Your task to perform on an android device: Go to Amazon Image 0: 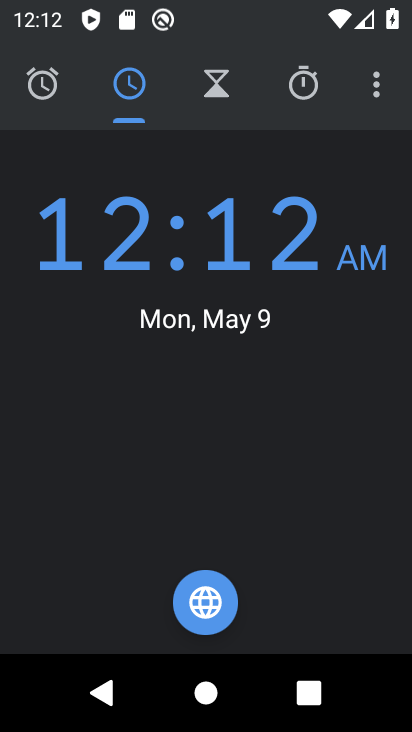
Step 0: press home button
Your task to perform on an android device: Go to Amazon Image 1: 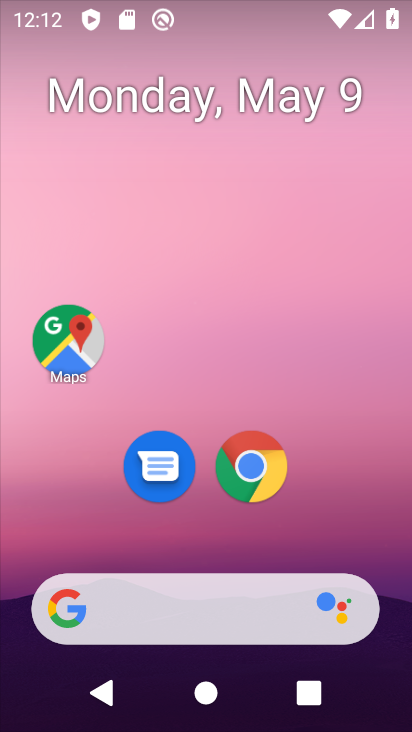
Step 1: click (252, 466)
Your task to perform on an android device: Go to Amazon Image 2: 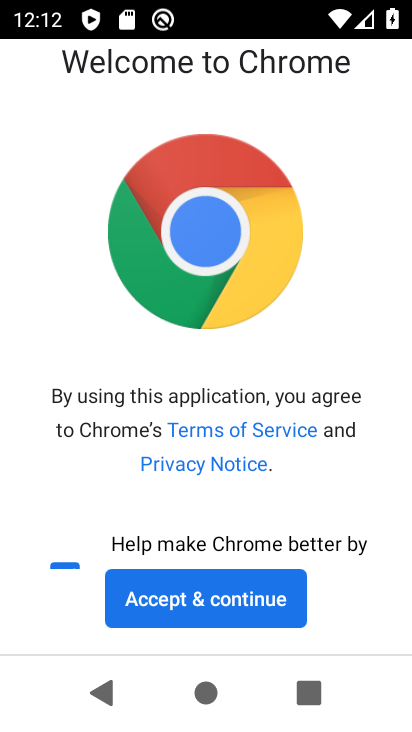
Step 2: click (229, 609)
Your task to perform on an android device: Go to Amazon Image 3: 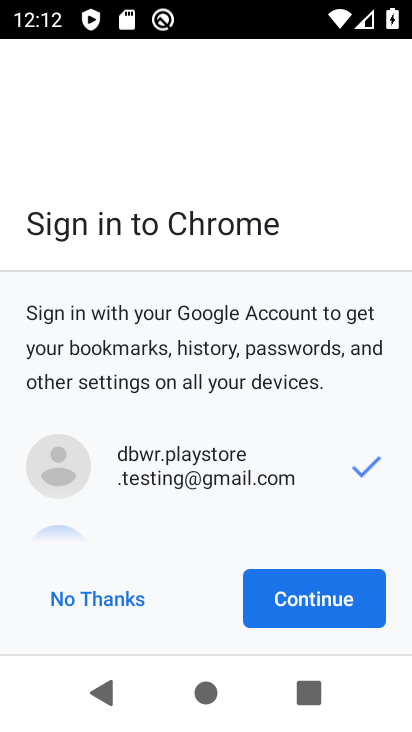
Step 3: click (289, 606)
Your task to perform on an android device: Go to Amazon Image 4: 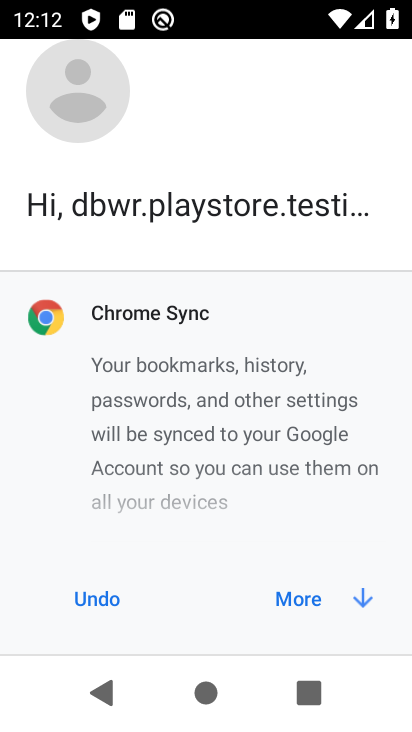
Step 4: click (289, 606)
Your task to perform on an android device: Go to Amazon Image 5: 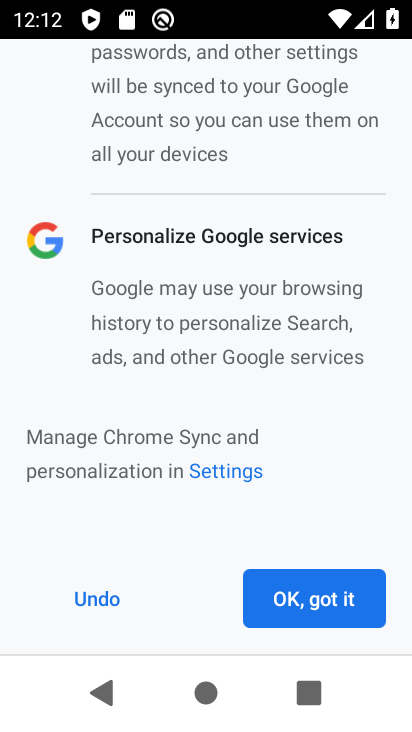
Step 5: click (289, 606)
Your task to perform on an android device: Go to Amazon Image 6: 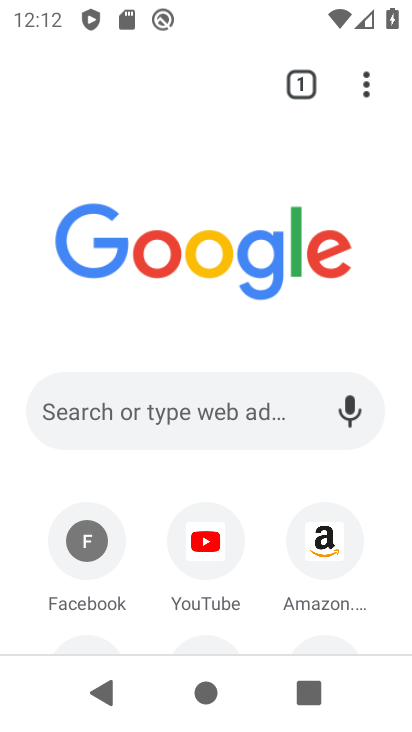
Step 6: click (339, 546)
Your task to perform on an android device: Go to Amazon Image 7: 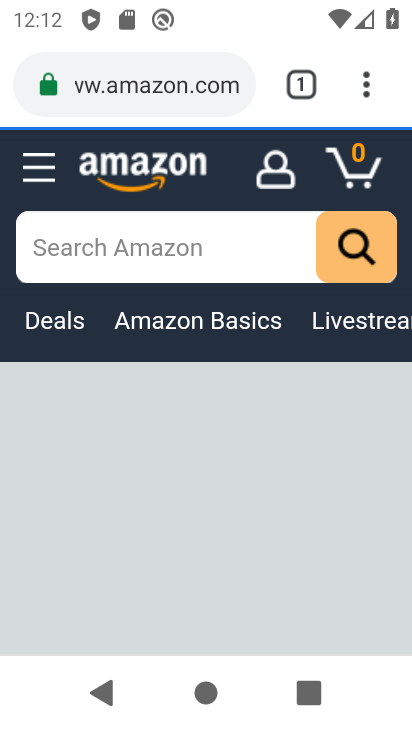
Step 7: task complete